Your task to perform on an android device: turn off translation in the chrome app Image 0: 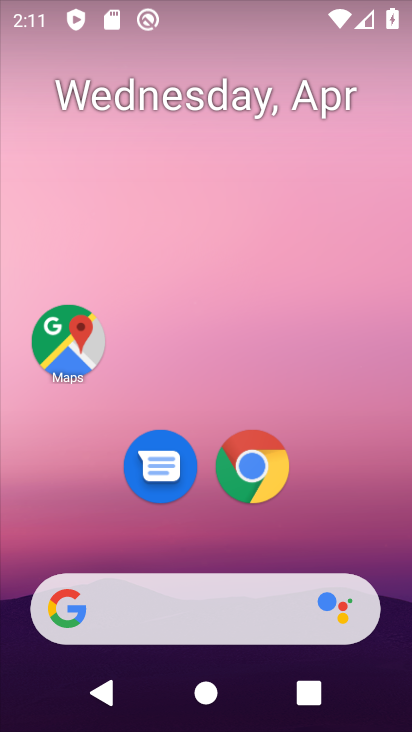
Step 0: drag from (212, 578) to (230, 225)
Your task to perform on an android device: turn off translation in the chrome app Image 1: 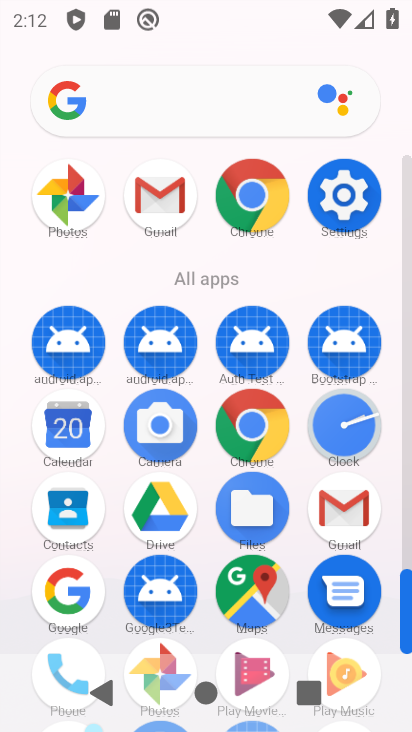
Step 1: click (264, 179)
Your task to perform on an android device: turn off translation in the chrome app Image 2: 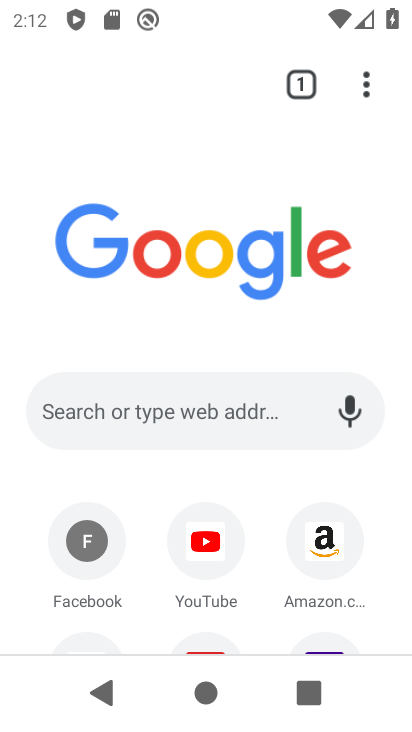
Step 2: click (378, 85)
Your task to perform on an android device: turn off translation in the chrome app Image 3: 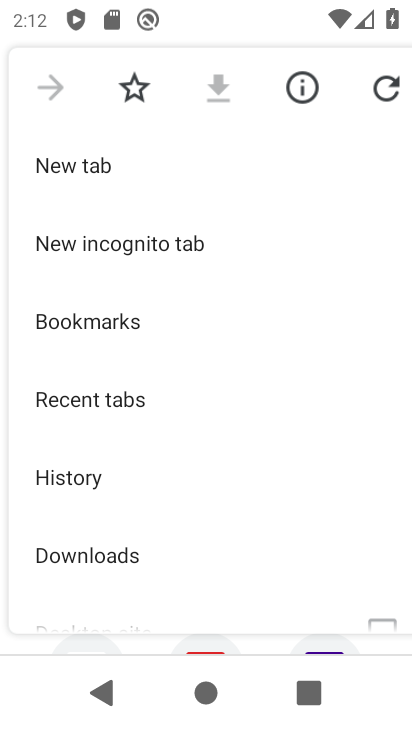
Step 3: drag from (184, 562) to (240, 153)
Your task to perform on an android device: turn off translation in the chrome app Image 4: 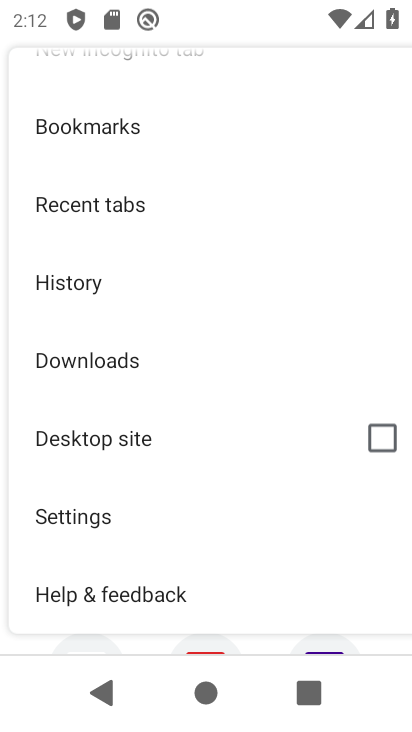
Step 4: click (110, 515)
Your task to perform on an android device: turn off translation in the chrome app Image 5: 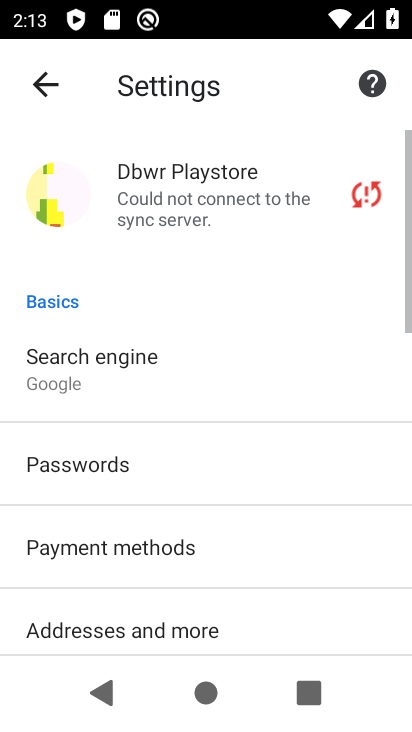
Step 5: drag from (190, 593) to (274, 184)
Your task to perform on an android device: turn off translation in the chrome app Image 6: 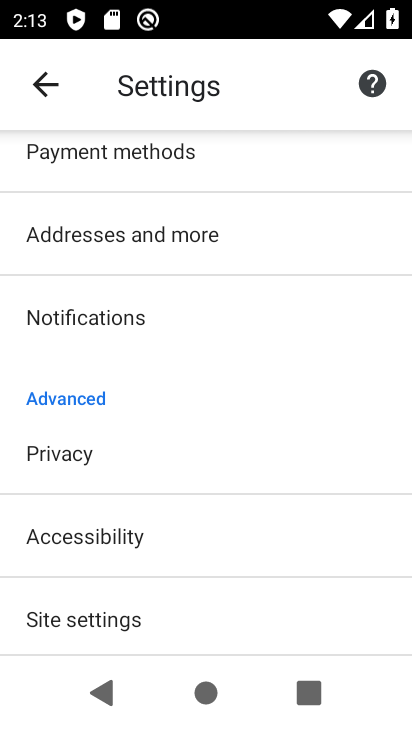
Step 6: drag from (176, 571) to (228, 259)
Your task to perform on an android device: turn off translation in the chrome app Image 7: 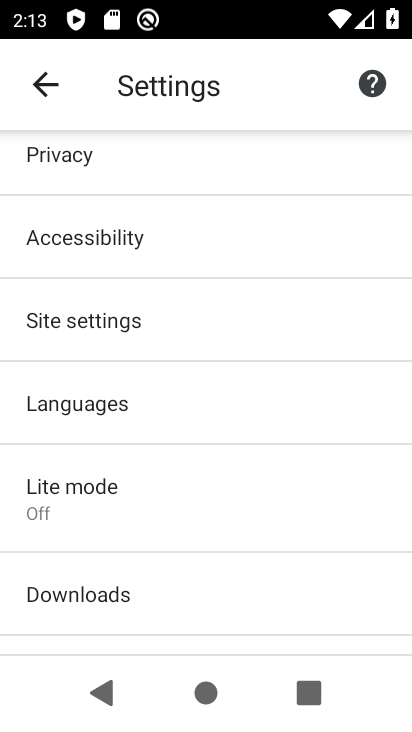
Step 7: click (149, 390)
Your task to perform on an android device: turn off translation in the chrome app Image 8: 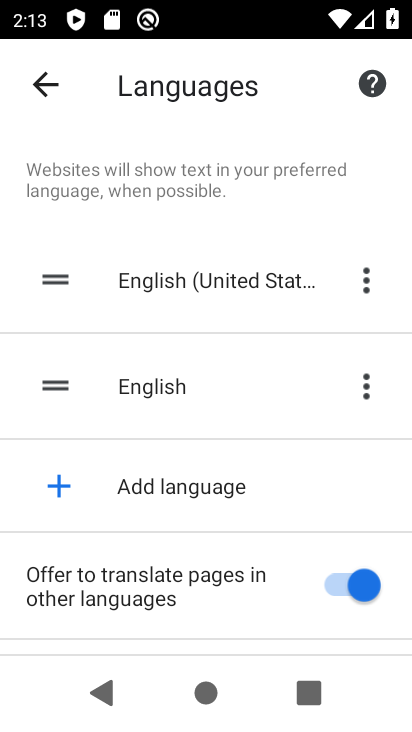
Step 8: click (330, 571)
Your task to perform on an android device: turn off translation in the chrome app Image 9: 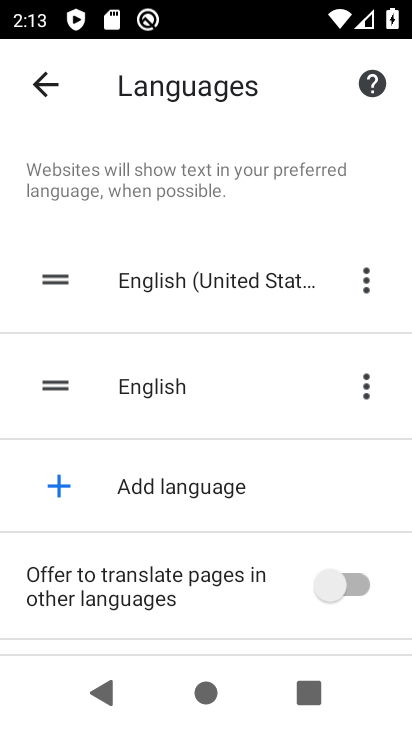
Step 9: task complete